Your task to perform on an android device: Open wifi settings Image 0: 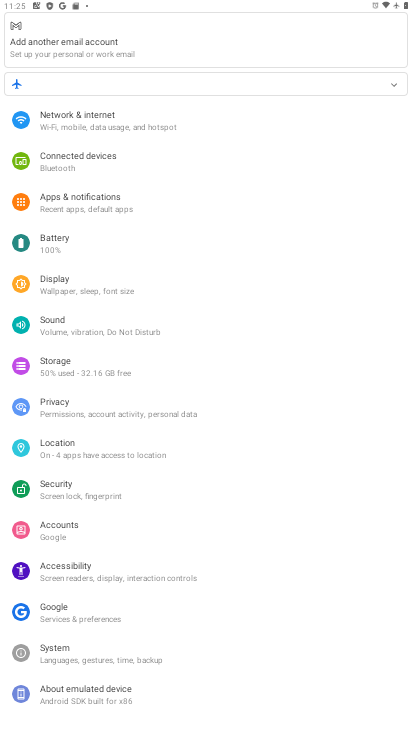
Step 0: click (112, 110)
Your task to perform on an android device: Open wifi settings Image 1: 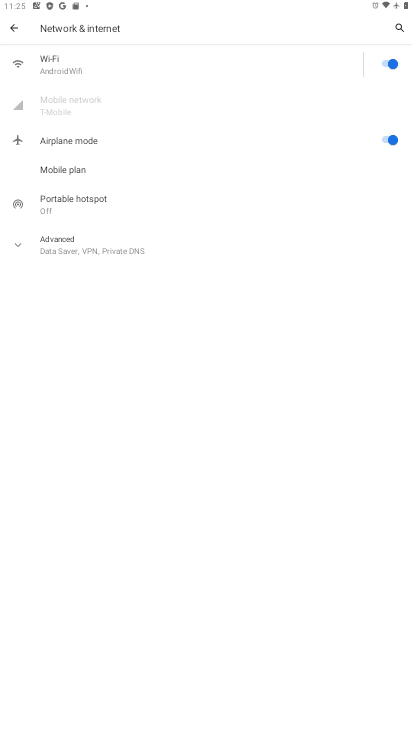
Step 1: task complete